Your task to perform on an android device: Open Google Maps Image 0: 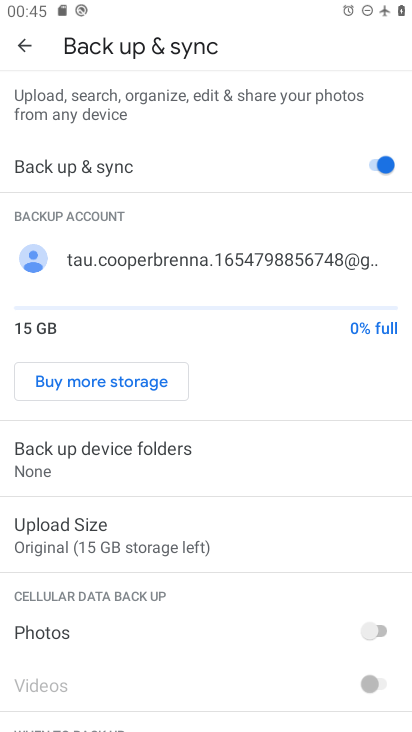
Step 0: press home button
Your task to perform on an android device: Open Google Maps Image 1: 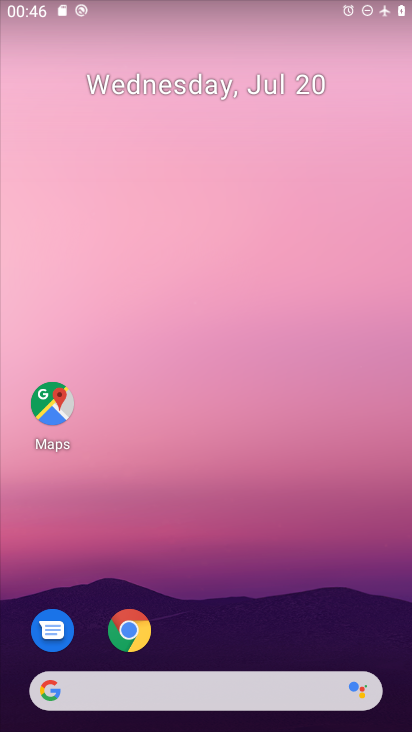
Step 1: click (64, 404)
Your task to perform on an android device: Open Google Maps Image 2: 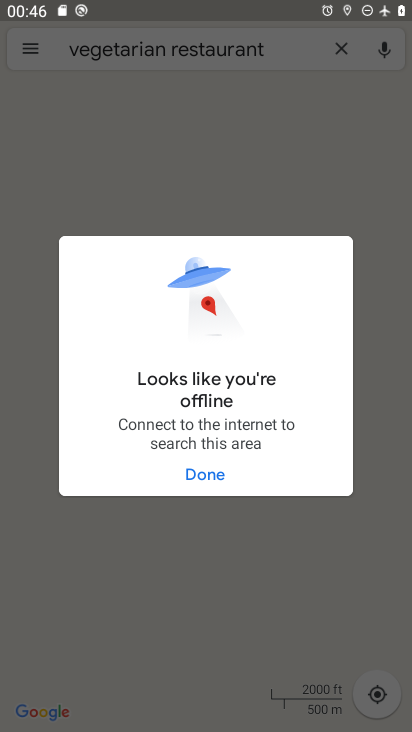
Step 2: task complete